Your task to perform on an android device: add a contact Image 0: 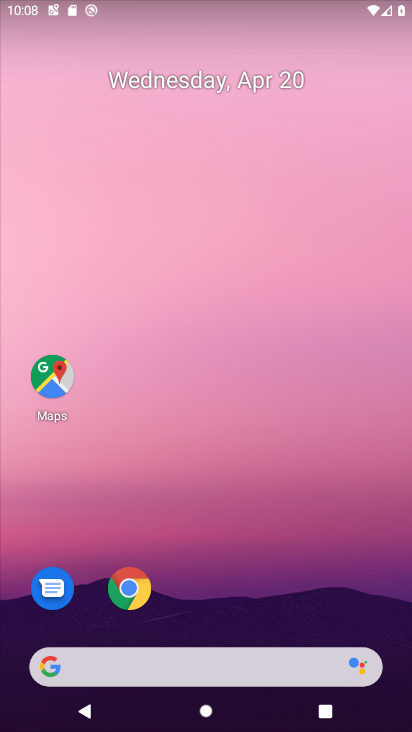
Step 0: drag from (202, 671) to (258, 47)
Your task to perform on an android device: add a contact Image 1: 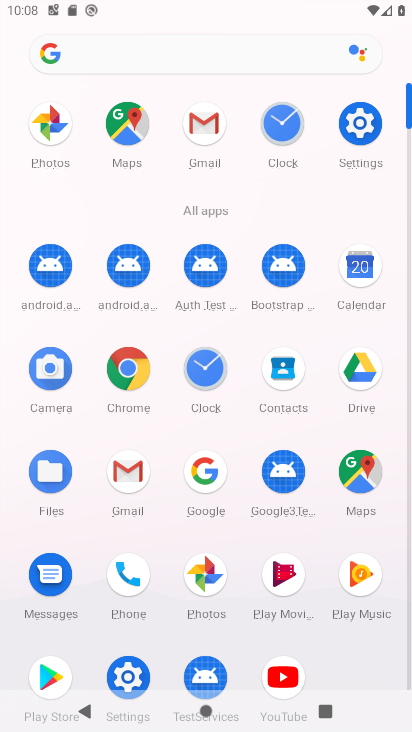
Step 1: click (286, 373)
Your task to perform on an android device: add a contact Image 2: 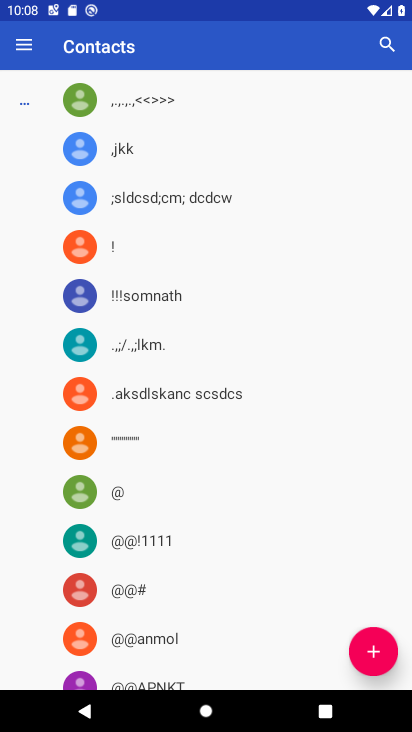
Step 2: click (374, 657)
Your task to perform on an android device: add a contact Image 3: 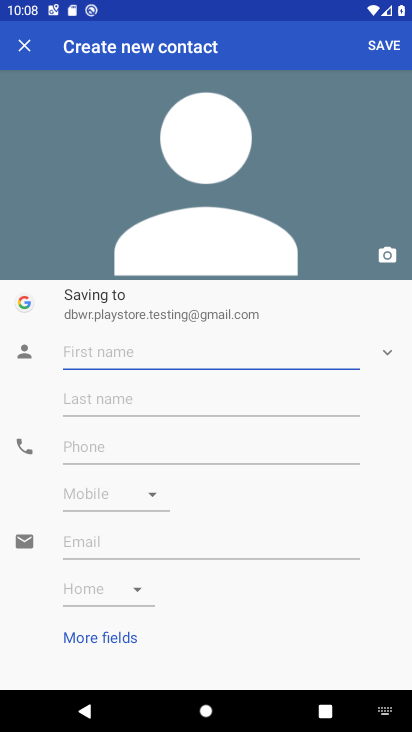
Step 3: type "bcvcnn"
Your task to perform on an android device: add a contact Image 4: 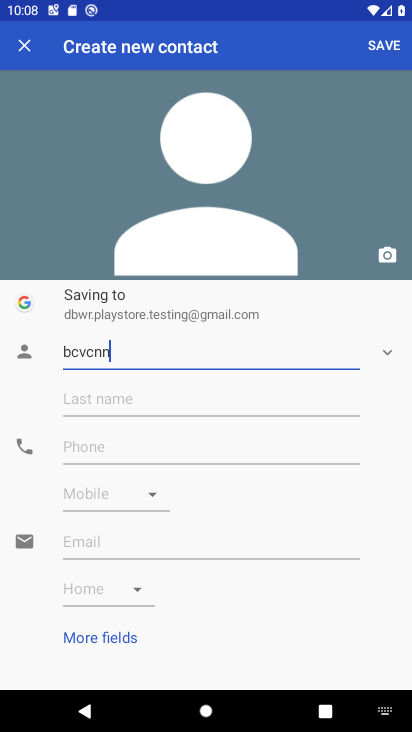
Step 4: click (268, 453)
Your task to perform on an android device: add a contact Image 5: 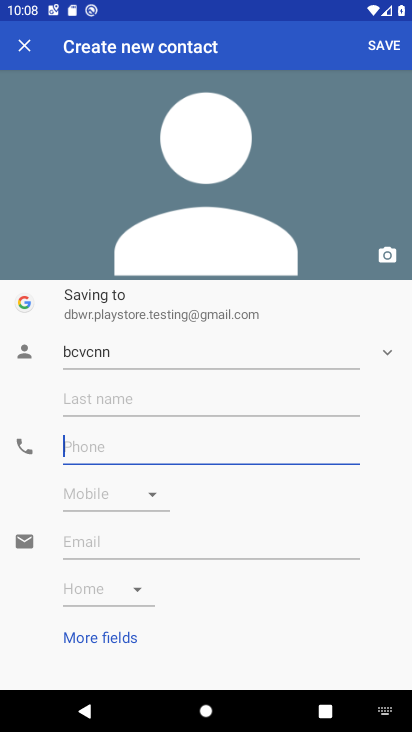
Step 5: type "34636547"
Your task to perform on an android device: add a contact Image 6: 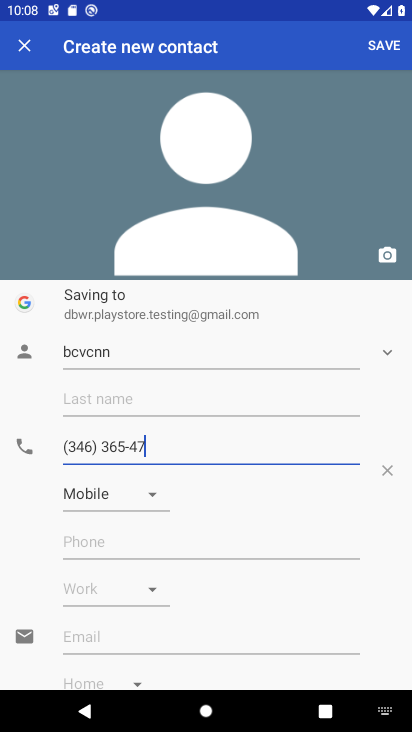
Step 6: task complete